Your task to perform on an android device: turn off priority inbox in the gmail app Image 0: 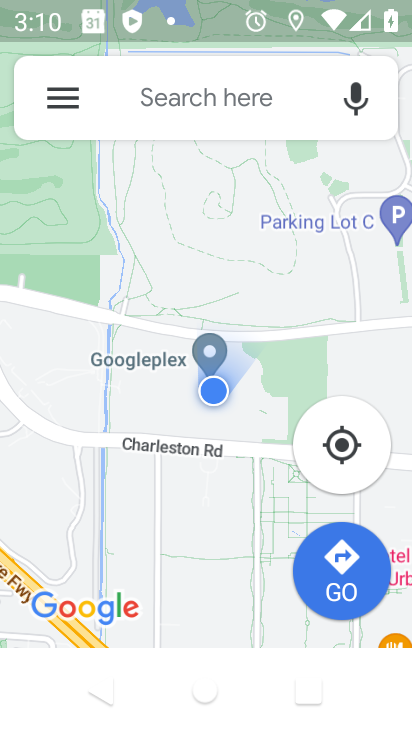
Step 0: press home button
Your task to perform on an android device: turn off priority inbox in the gmail app Image 1: 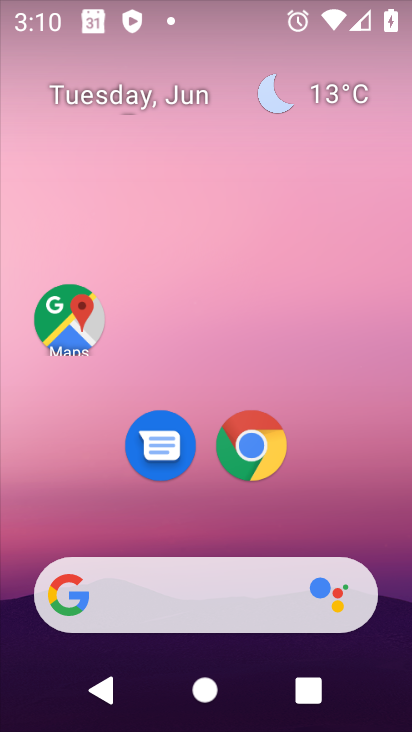
Step 1: drag from (397, 605) to (329, 109)
Your task to perform on an android device: turn off priority inbox in the gmail app Image 2: 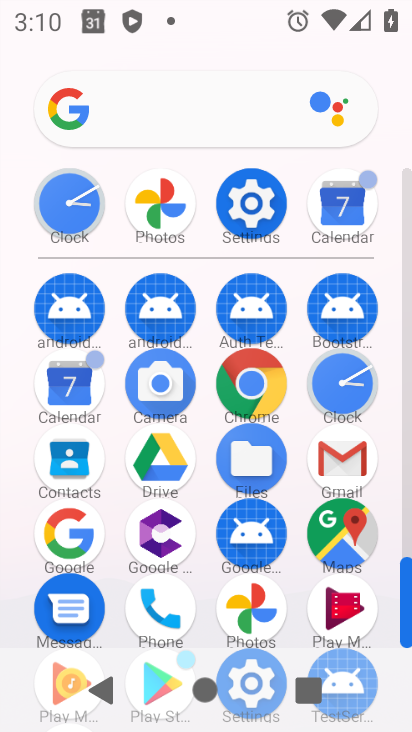
Step 2: click (343, 460)
Your task to perform on an android device: turn off priority inbox in the gmail app Image 3: 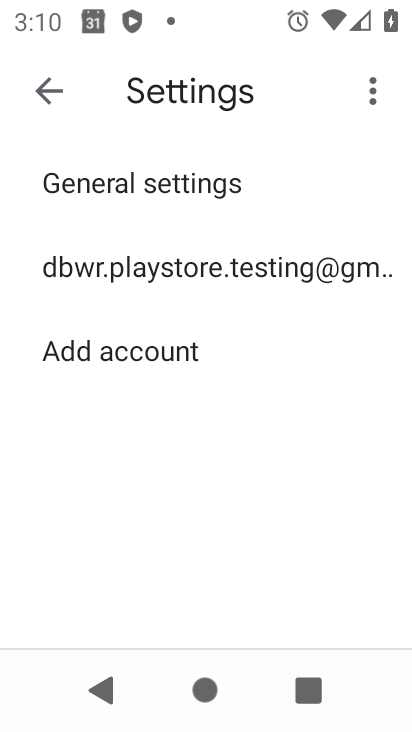
Step 3: click (166, 276)
Your task to perform on an android device: turn off priority inbox in the gmail app Image 4: 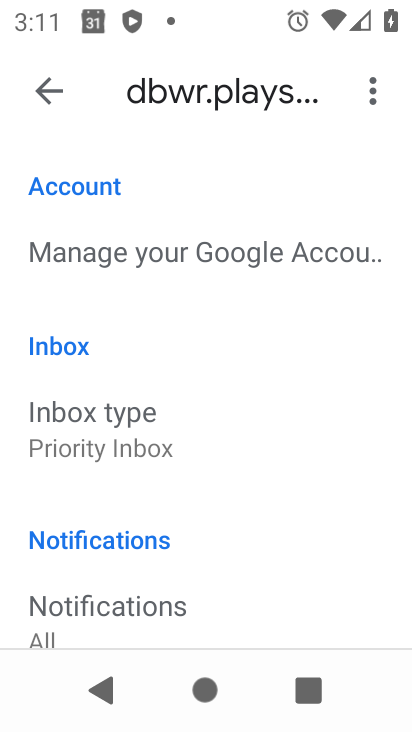
Step 4: click (72, 416)
Your task to perform on an android device: turn off priority inbox in the gmail app Image 5: 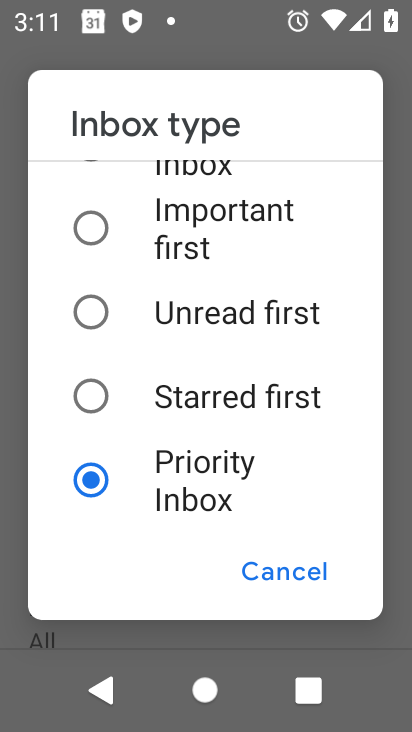
Step 5: click (92, 217)
Your task to perform on an android device: turn off priority inbox in the gmail app Image 6: 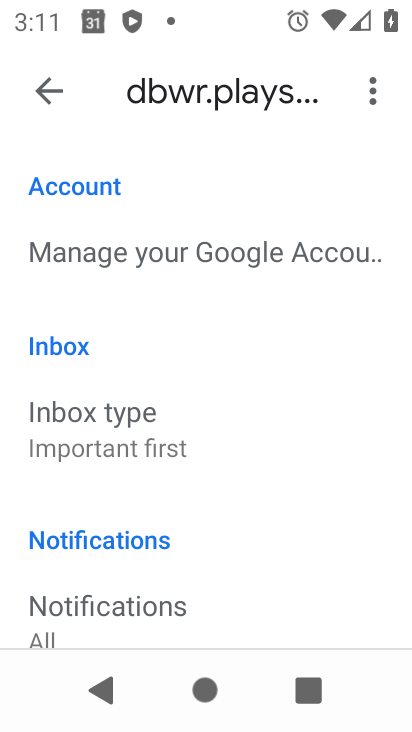
Step 6: task complete